Your task to perform on an android device: Check the weather Image 0: 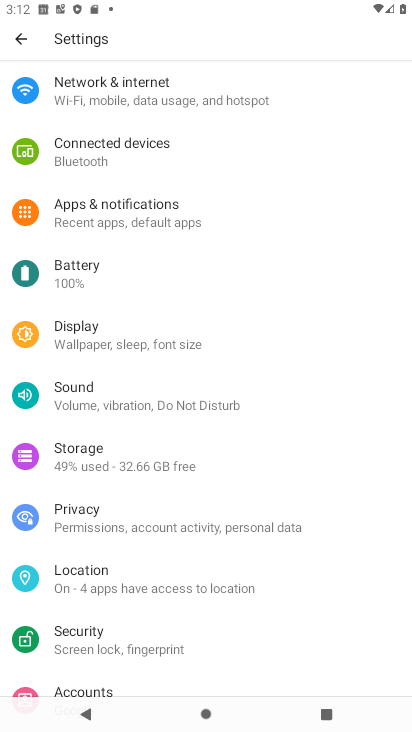
Step 0: press home button
Your task to perform on an android device: Check the weather Image 1: 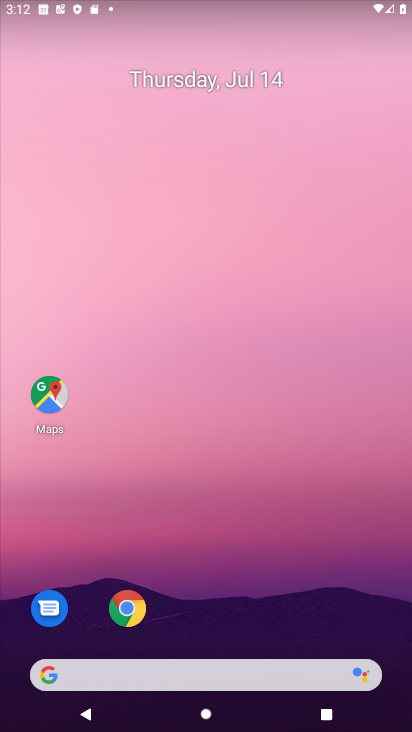
Step 1: click (189, 670)
Your task to perform on an android device: Check the weather Image 2: 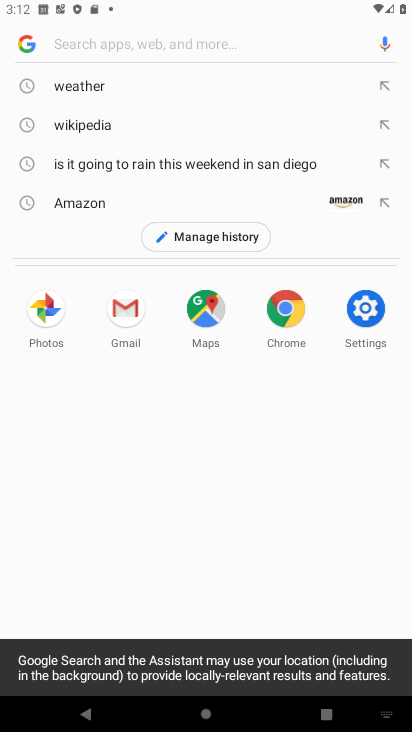
Step 2: type "weather"
Your task to perform on an android device: Check the weather Image 3: 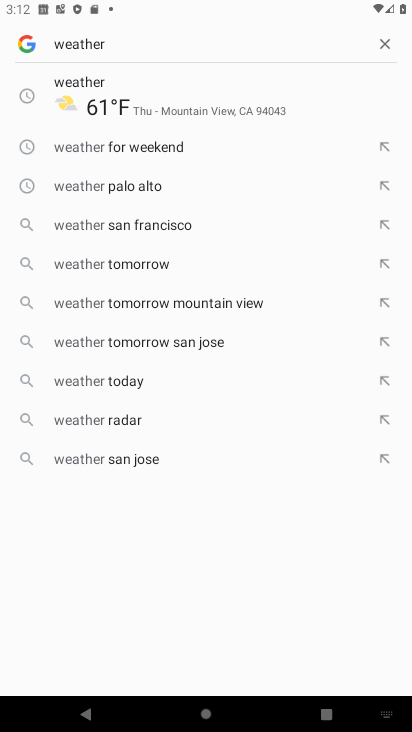
Step 3: click (251, 97)
Your task to perform on an android device: Check the weather Image 4: 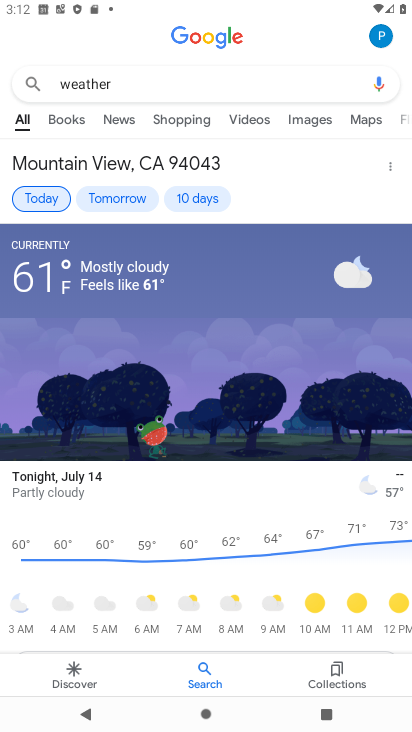
Step 4: task complete